Your task to perform on an android device: Open Chrome and go to settings Image 0: 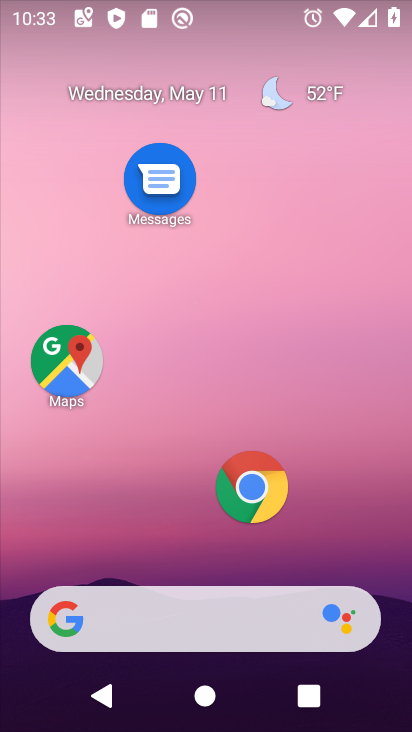
Step 0: click (256, 511)
Your task to perform on an android device: Open Chrome and go to settings Image 1: 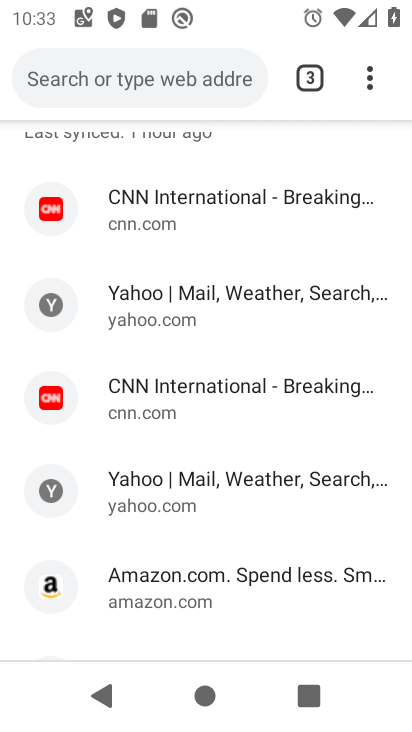
Step 1: task complete